Your task to perform on an android device: Open calendar and show me the second week of next month Image 0: 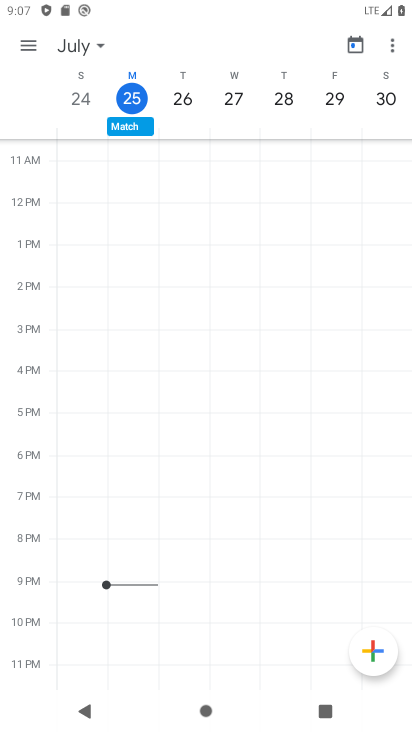
Step 0: click (100, 39)
Your task to perform on an android device: Open calendar and show me the second week of next month Image 1: 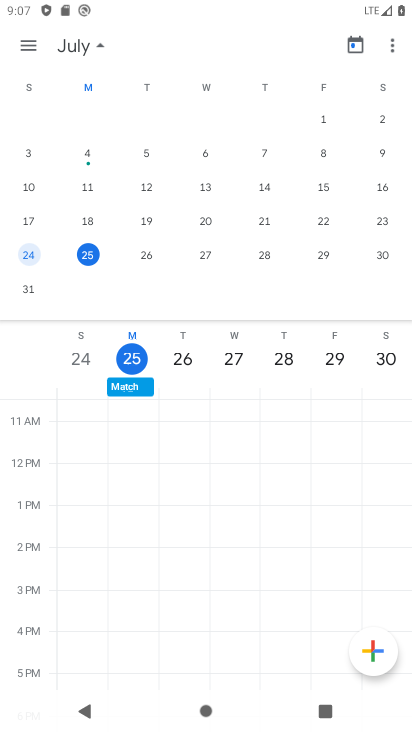
Step 1: drag from (362, 195) to (9, 206)
Your task to perform on an android device: Open calendar and show me the second week of next month Image 2: 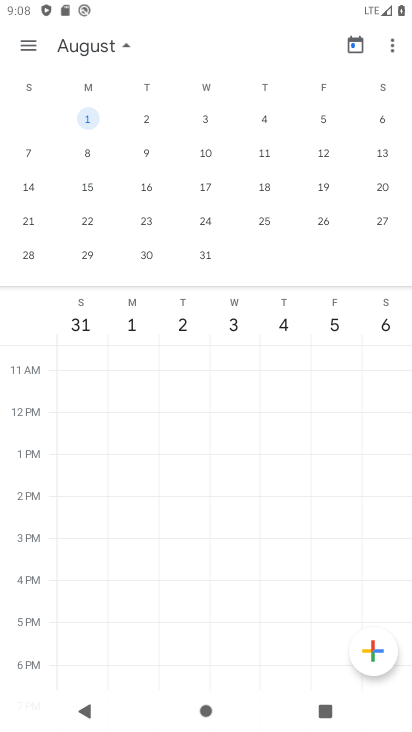
Step 2: click (147, 152)
Your task to perform on an android device: Open calendar and show me the second week of next month Image 3: 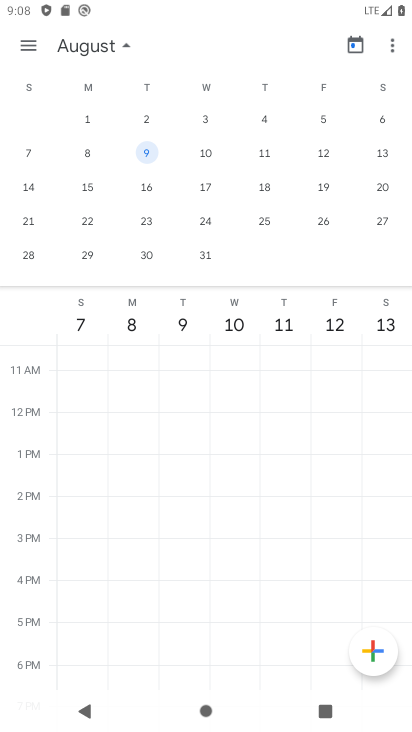
Step 3: task complete